Your task to perform on an android device: all mails in gmail Image 0: 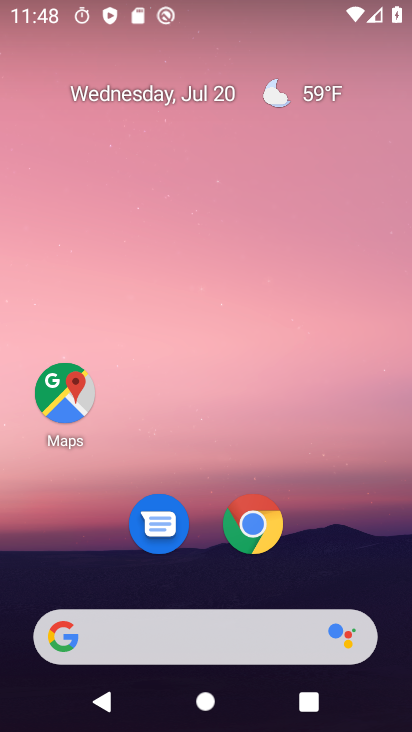
Step 0: press home button
Your task to perform on an android device: all mails in gmail Image 1: 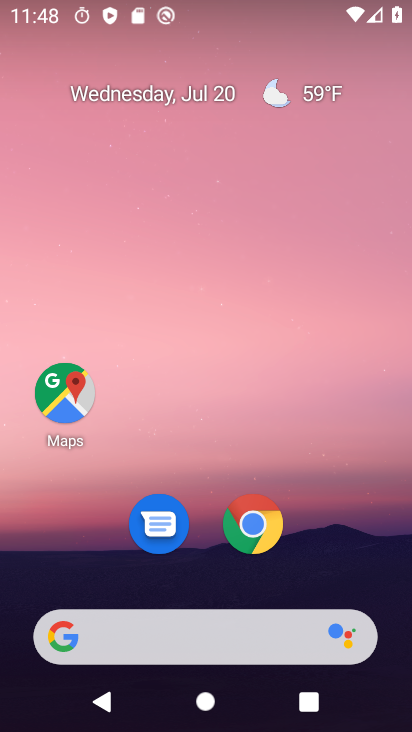
Step 1: drag from (211, 638) to (294, 109)
Your task to perform on an android device: all mails in gmail Image 2: 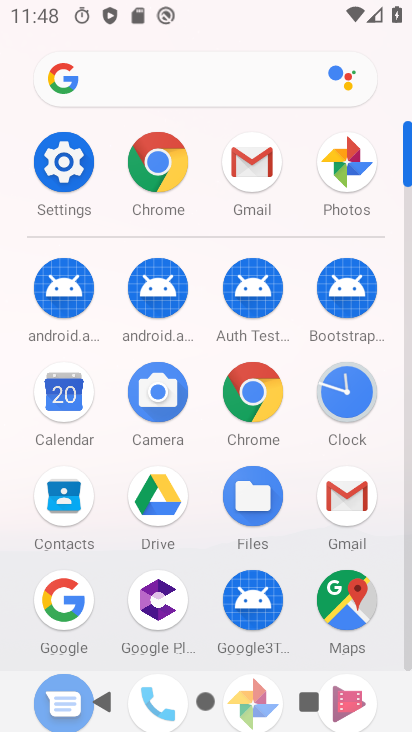
Step 2: click (347, 505)
Your task to perform on an android device: all mails in gmail Image 3: 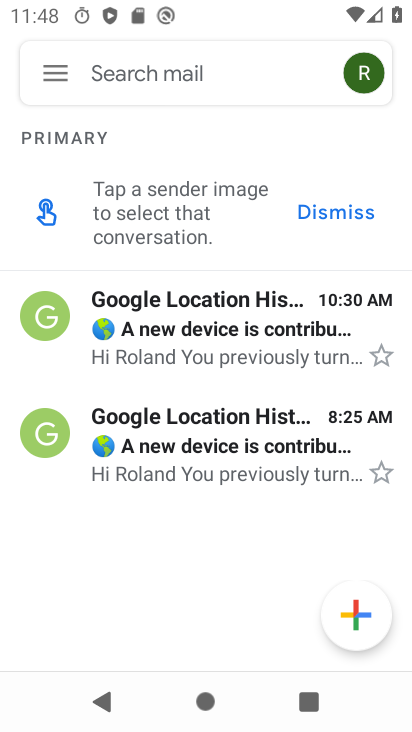
Step 3: click (52, 72)
Your task to perform on an android device: all mails in gmail Image 4: 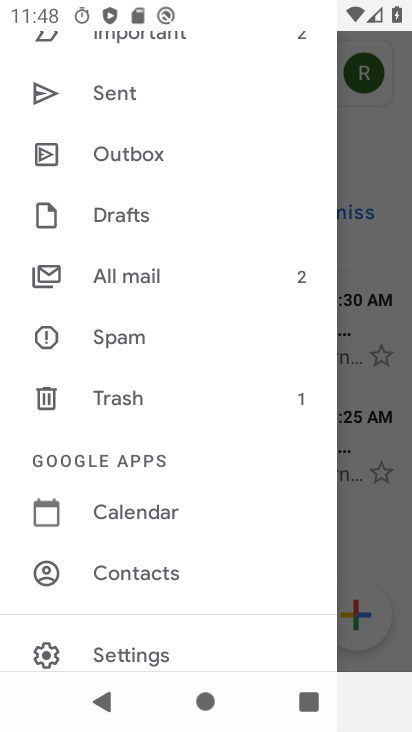
Step 4: click (135, 282)
Your task to perform on an android device: all mails in gmail Image 5: 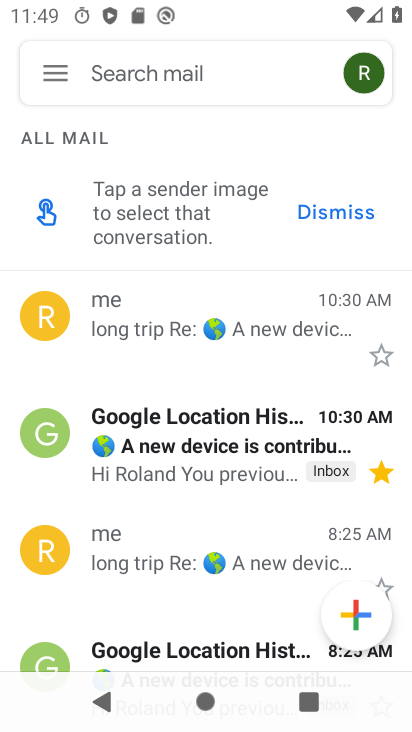
Step 5: task complete